Your task to perform on an android device: What's the weather today? Image 0: 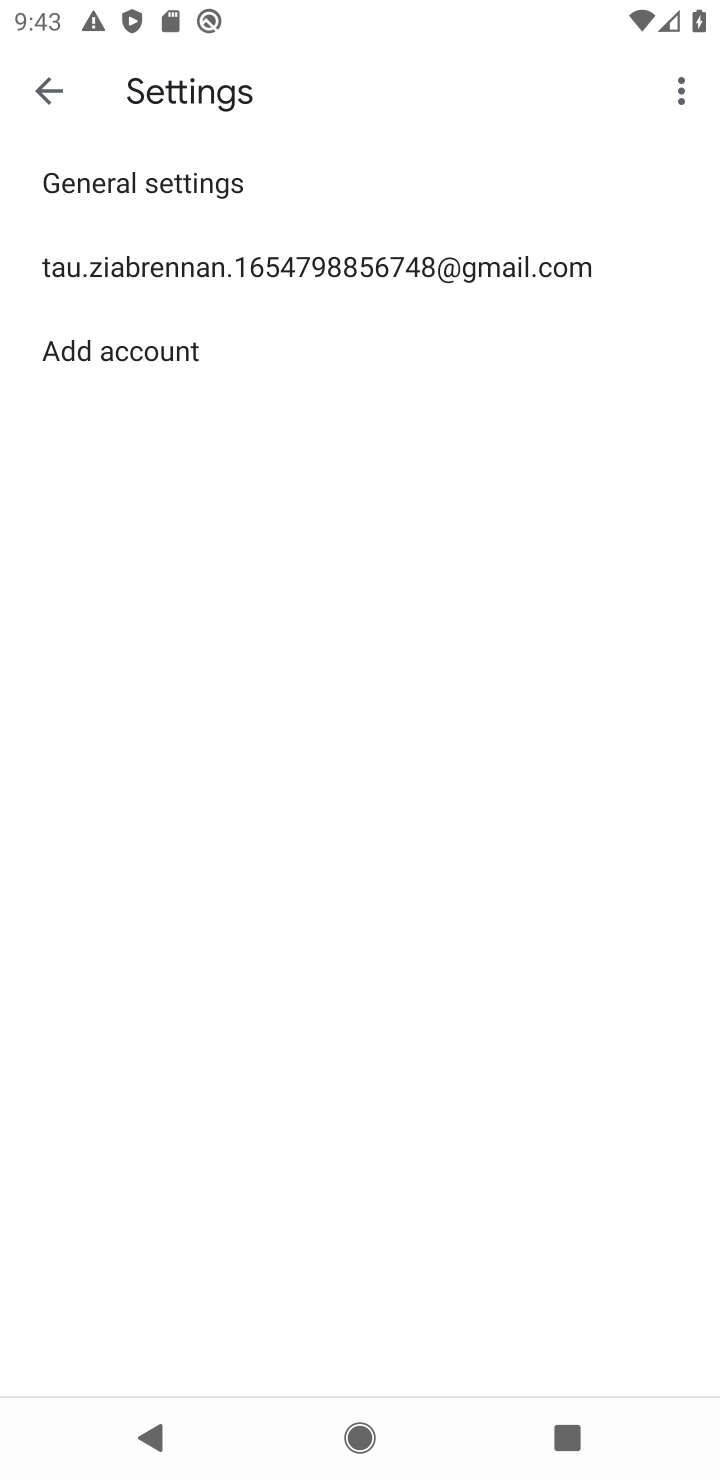
Step 0: press home button
Your task to perform on an android device: What's the weather today? Image 1: 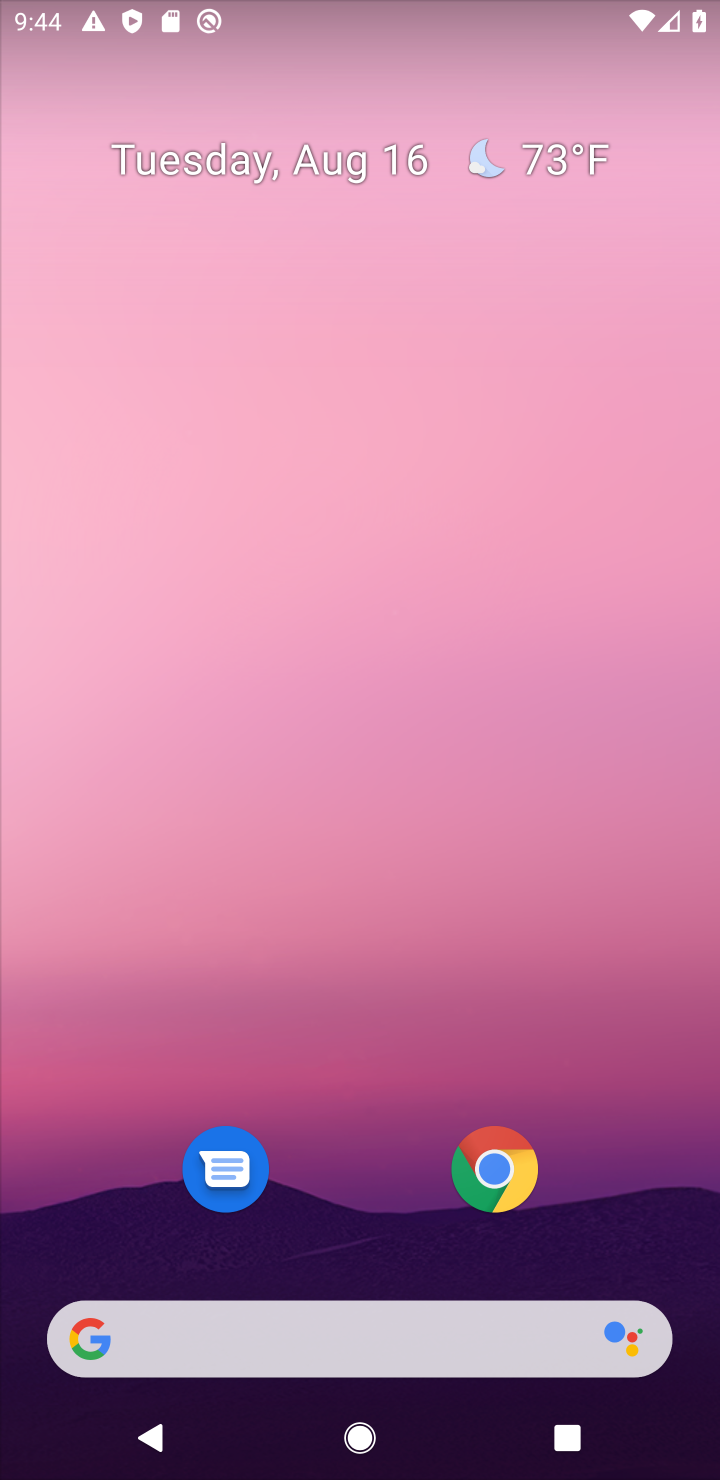
Step 1: click (269, 1354)
Your task to perform on an android device: What's the weather today? Image 2: 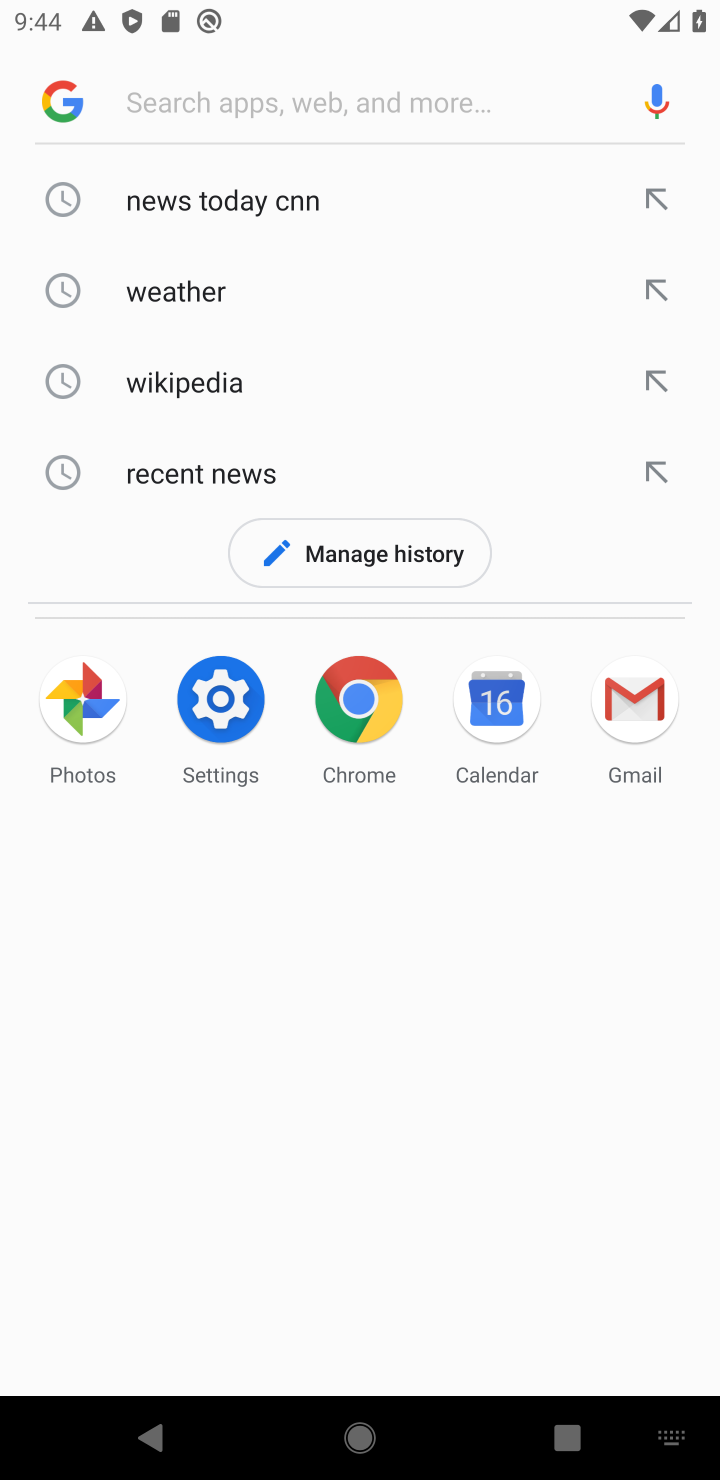
Step 2: click (172, 293)
Your task to perform on an android device: What's the weather today? Image 3: 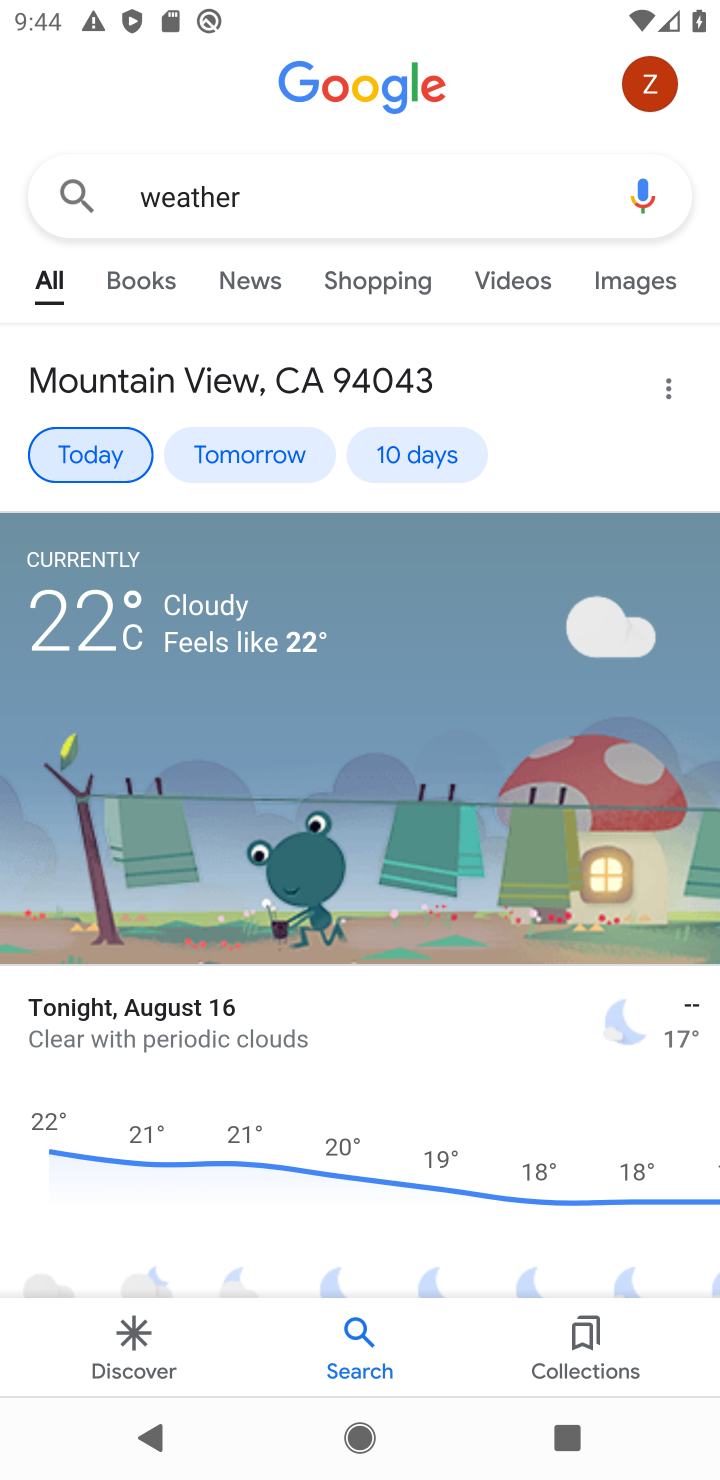
Step 3: task complete